Your task to perform on an android device: open app "Adobe Acrobat Reader" Image 0: 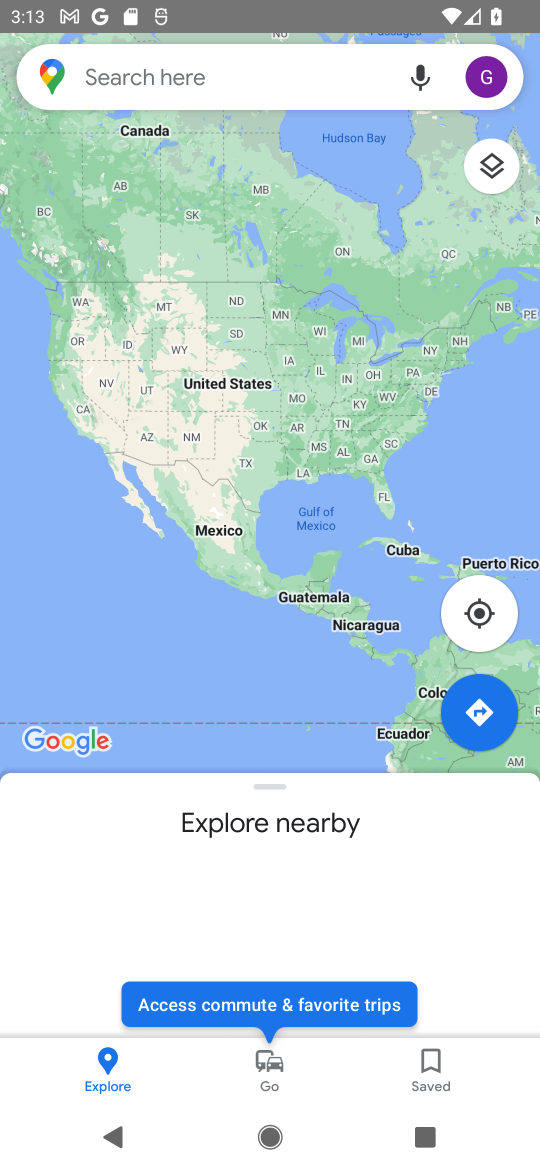
Step 0: press home button
Your task to perform on an android device: open app "Adobe Acrobat Reader" Image 1: 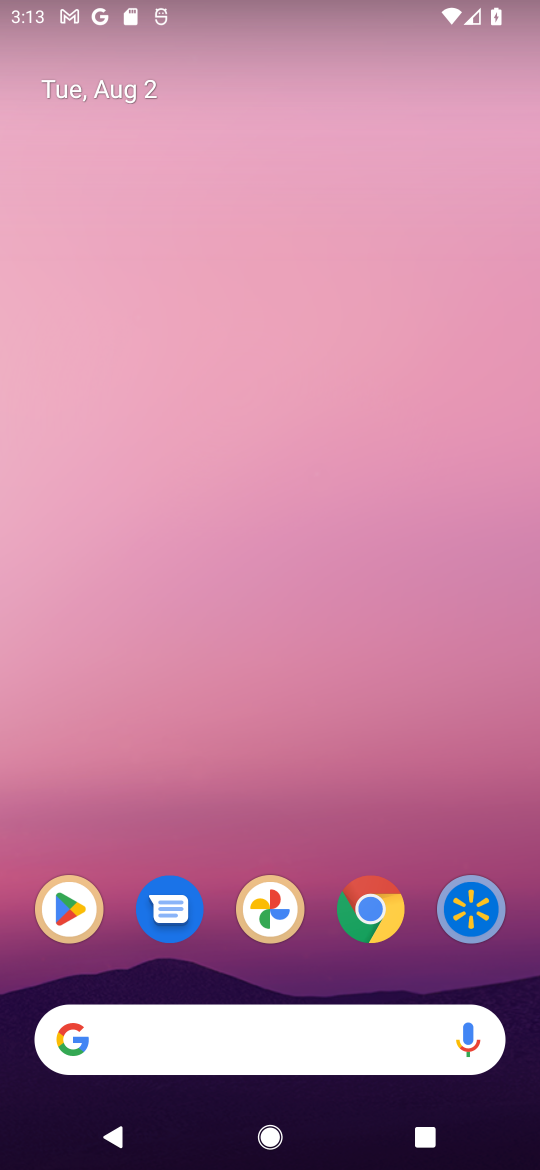
Step 1: drag from (313, 973) to (437, 333)
Your task to perform on an android device: open app "Adobe Acrobat Reader" Image 2: 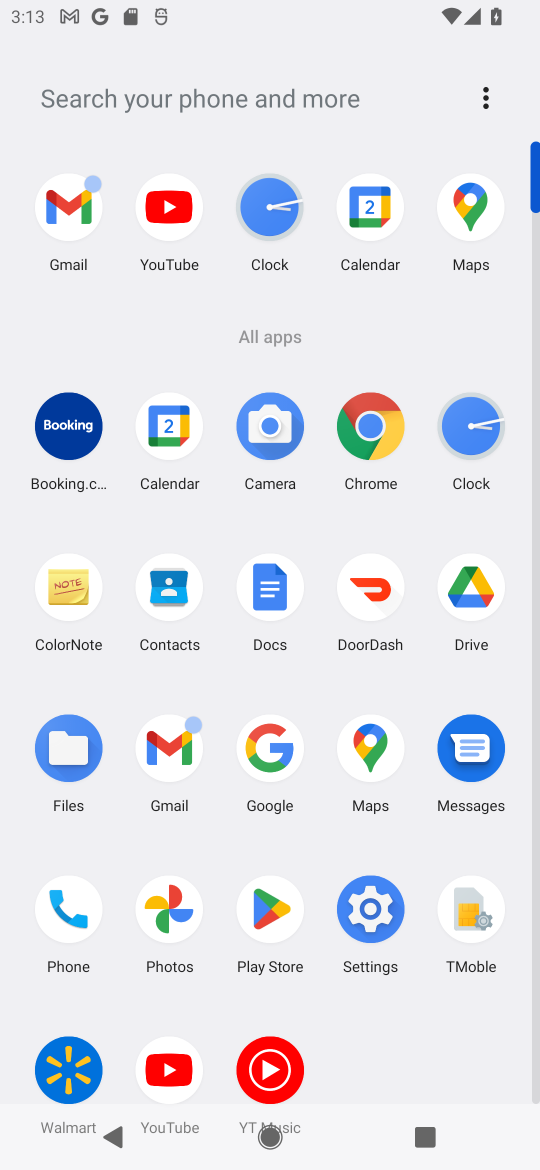
Step 2: click (273, 917)
Your task to perform on an android device: open app "Adobe Acrobat Reader" Image 3: 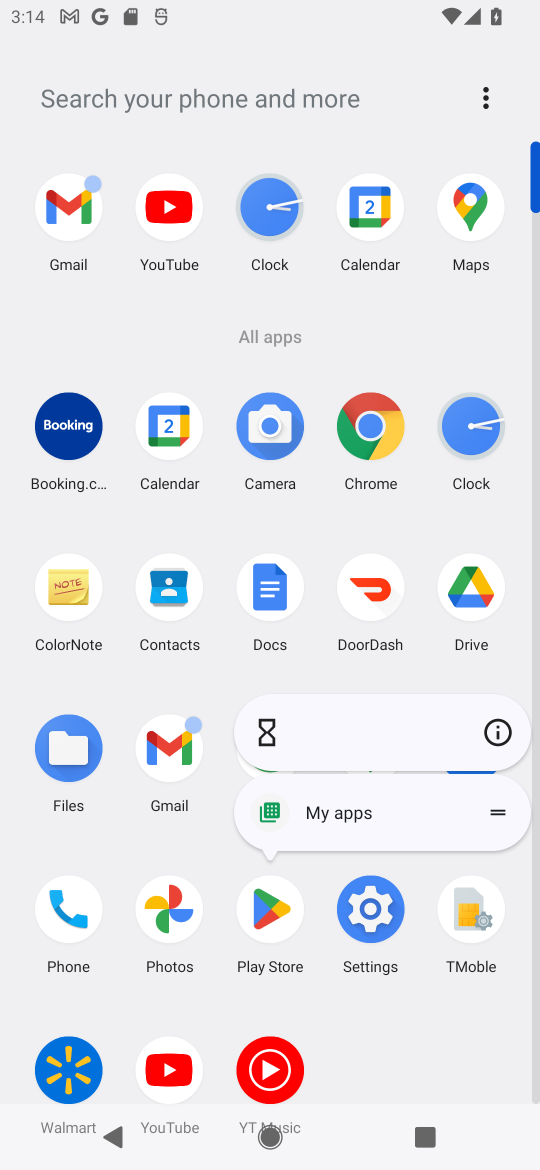
Step 3: click (495, 722)
Your task to perform on an android device: open app "Adobe Acrobat Reader" Image 4: 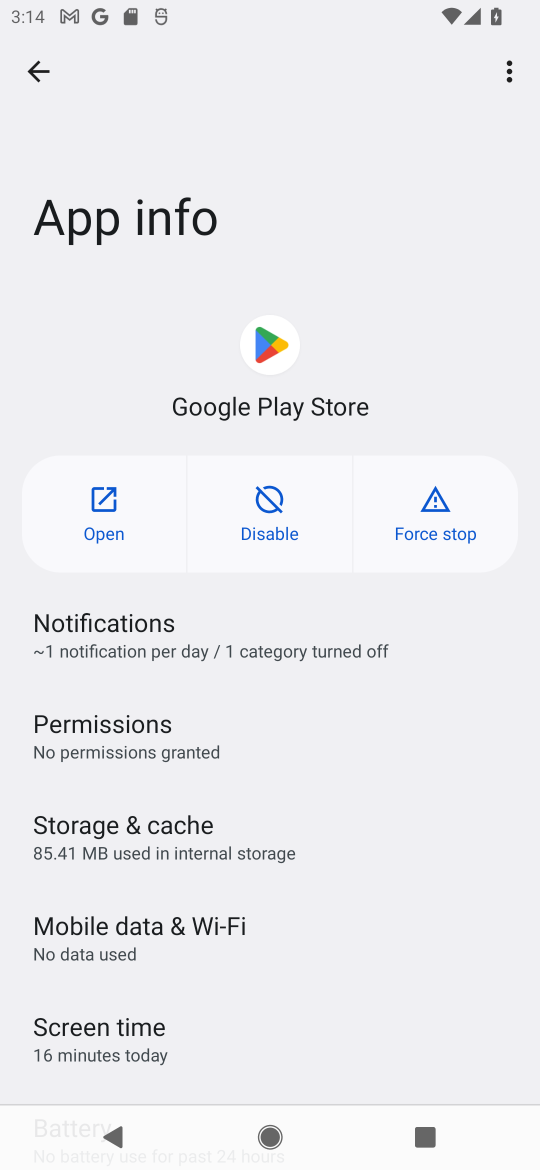
Step 4: click (111, 483)
Your task to perform on an android device: open app "Adobe Acrobat Reader" Image 5: 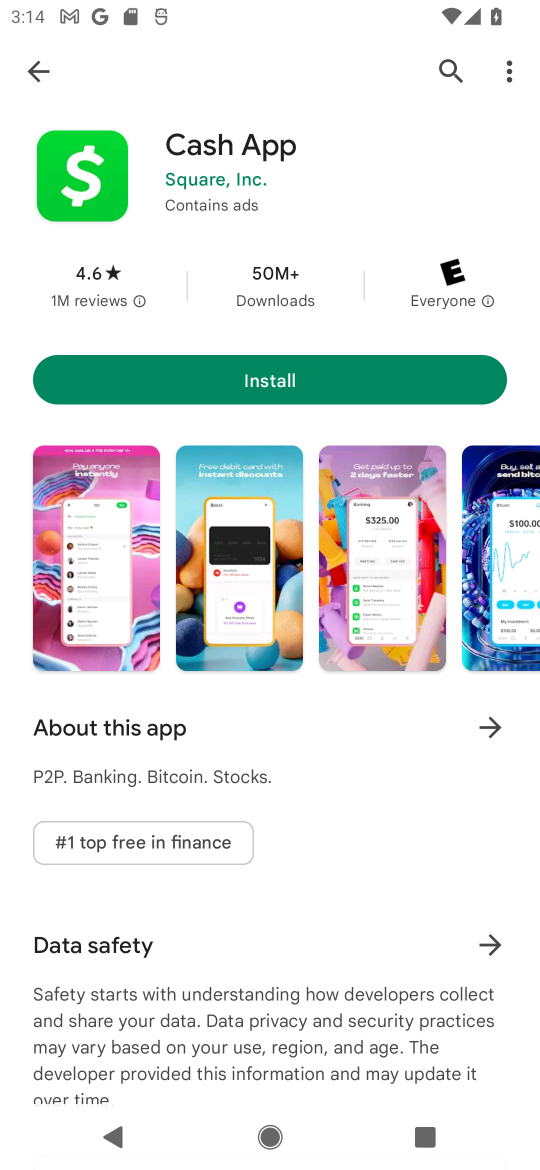
Step 5: click (443, 76)
Your task to perform on an android device: open app "Adobe Acrobat Reader" Image 6: 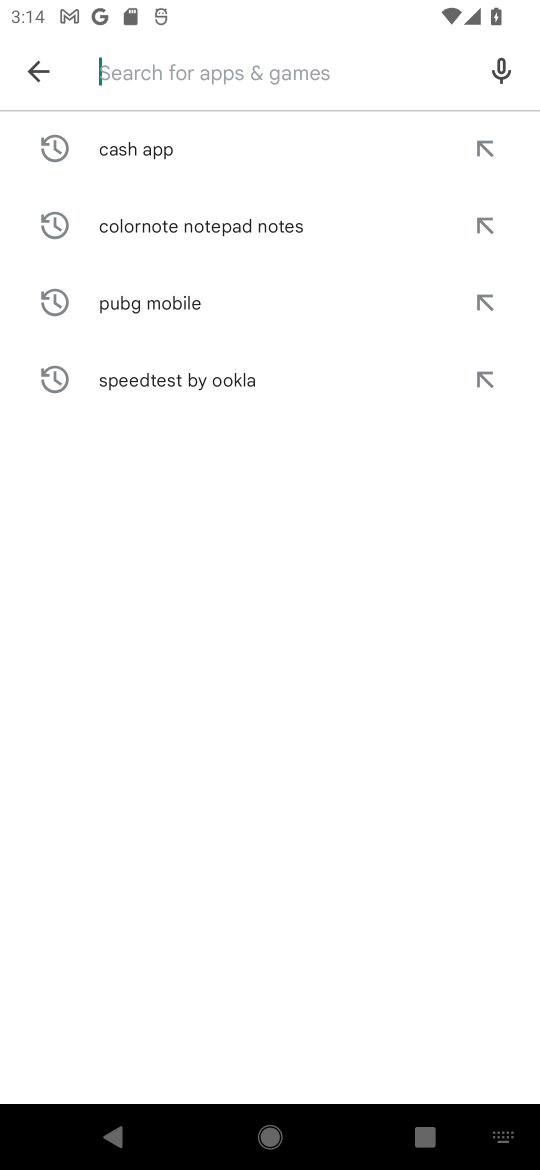
Step 6: type "Adobe Acrobat Reader"
Your task to perform on an android device: open app "Adobe Acrobat Reader" Image 7: 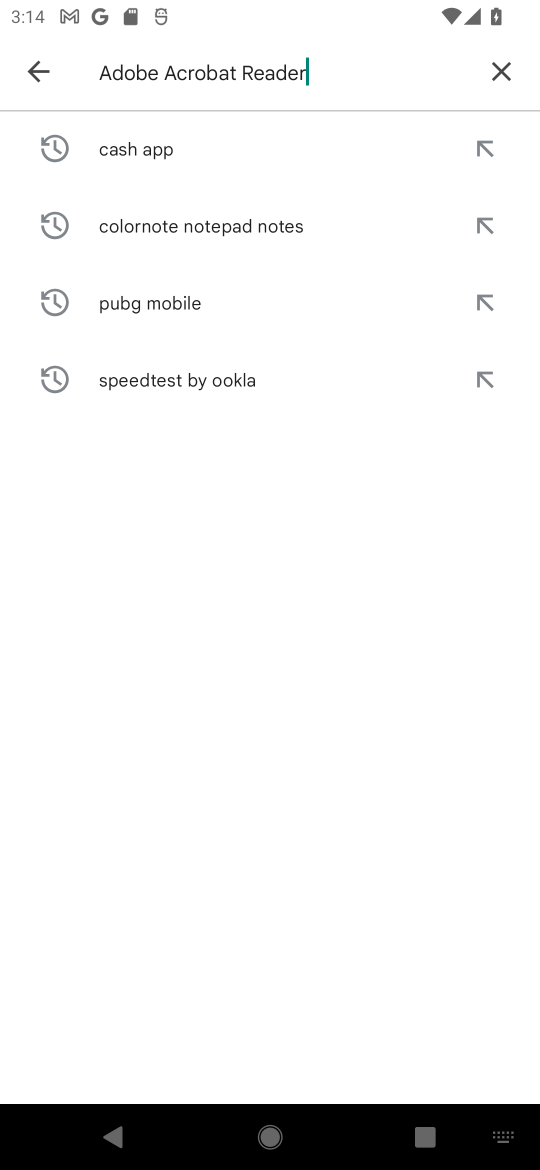
Step 7: type ""
Your task to perform on an android device: open app "Adobe Acrobat Reader" Image 8: 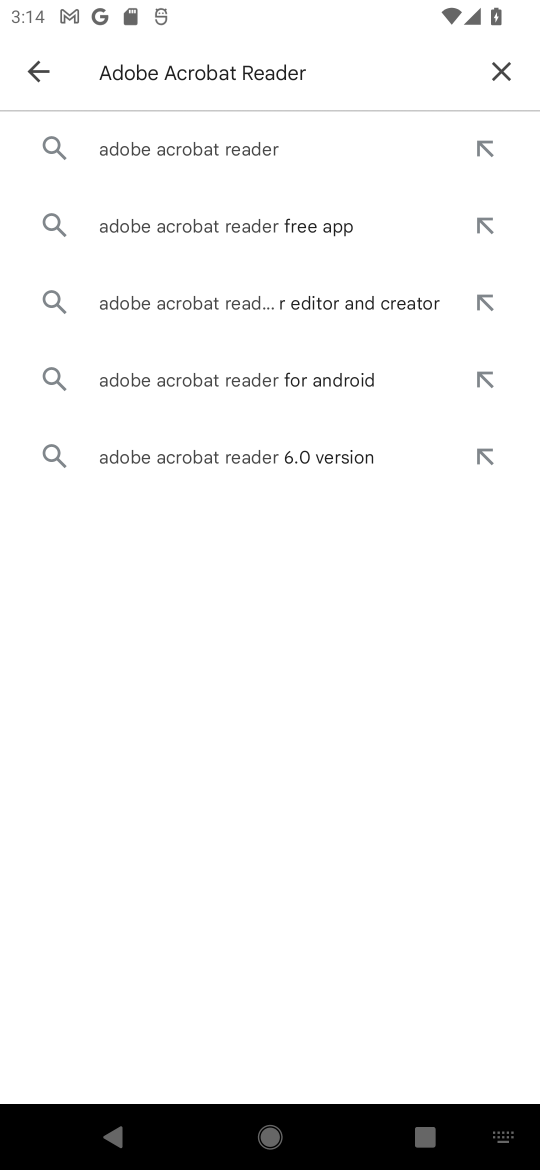
Step 8: click (215, 138)
Your task to perform on an android device: open app "Adobe Acrobat Reader" Image 9: 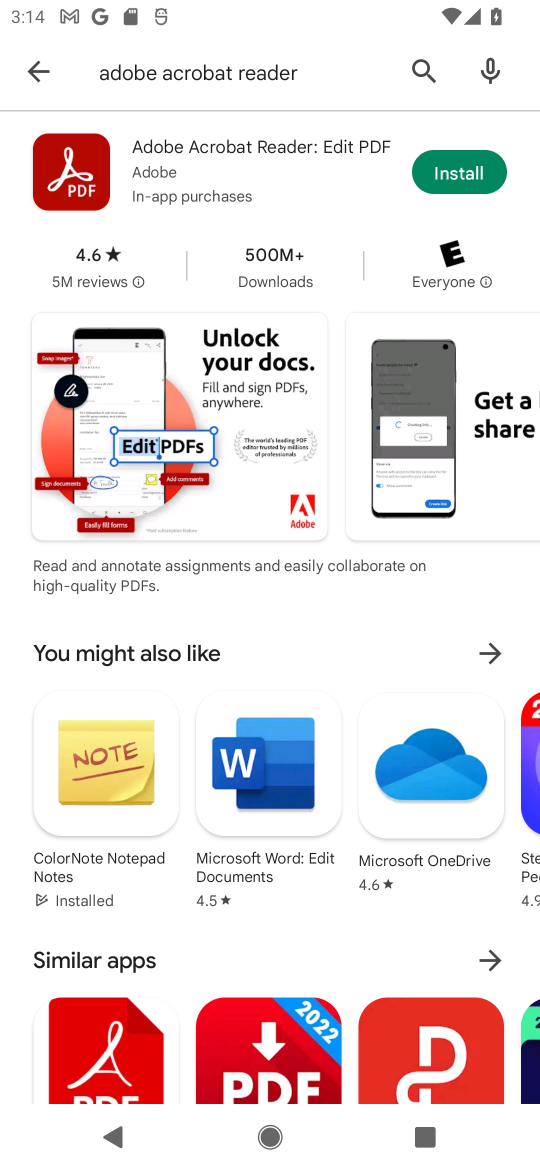
Step 9: click (144, 149)
Your task to perform on an android device: open app "Adobe Acrobat Reader" Image 10: 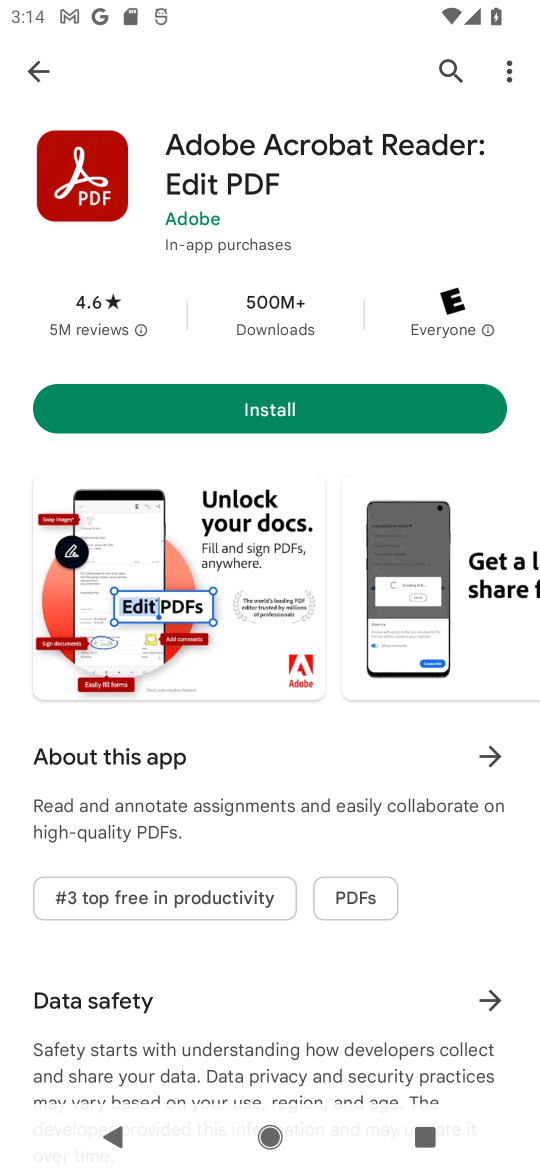
Step 10: task complete